Your task to perform on an android device: make emails show in primary in the gmail app Image 0: 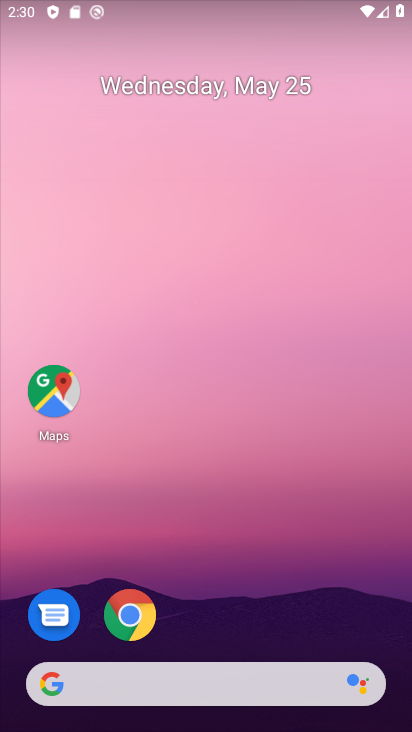
Step 0: drag from (238, 637) to (176, 246)
Your task to perform on an android device: make emails show in primary in the gmail app Image 1: 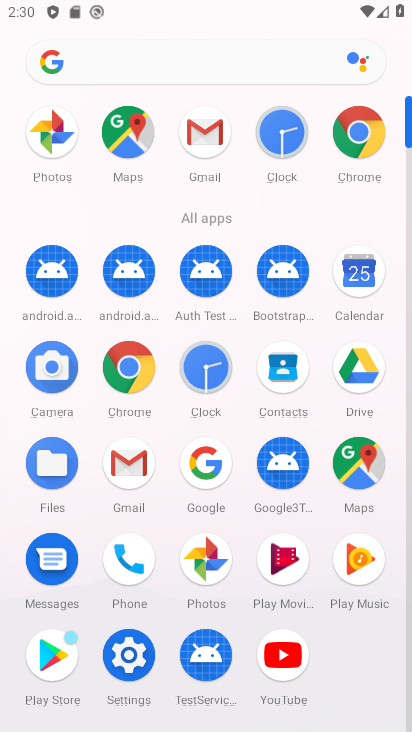
Step 1: click (197, 136)
Your task to perform on an android device: make emails show in primary in the gmail app Image 2: 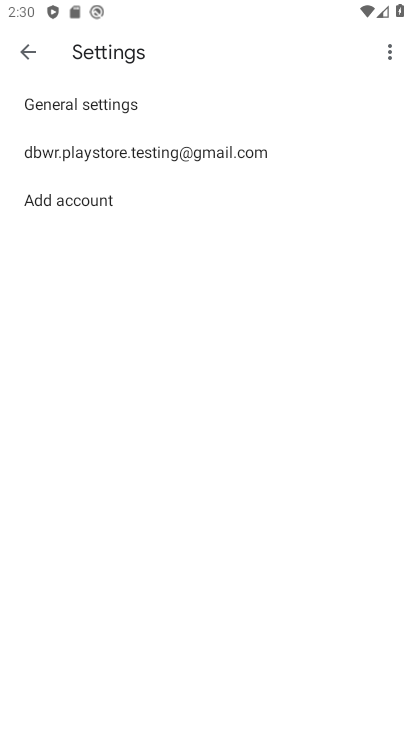
Step 2: click (199, 154)
Your task to perform on an android device: make emails show in primary in the gmail app Image 3: 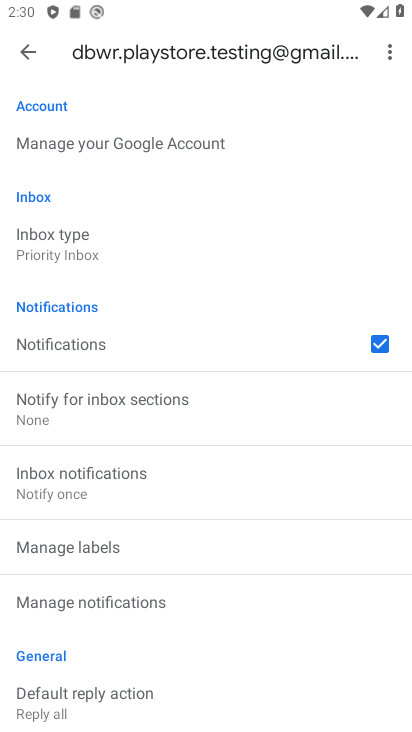
Step 3: click (180, 240)
Your task to perform on an android device: make emails show in primary in the gmail app Image 4: 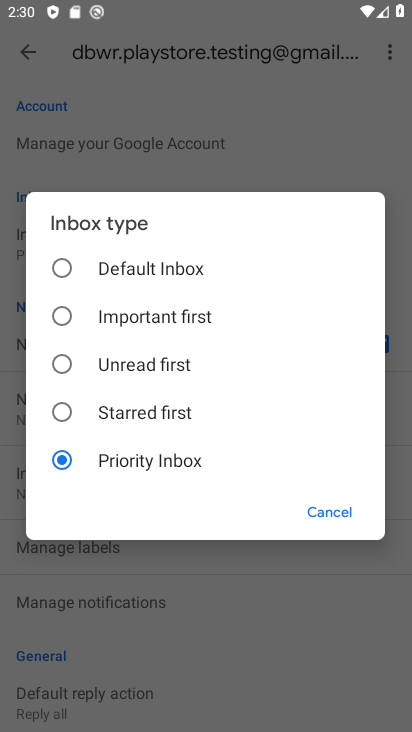
Step 4: click (181, 275)
Your task to perform on an android device: make emails show in primary in the gmail app Image 5: 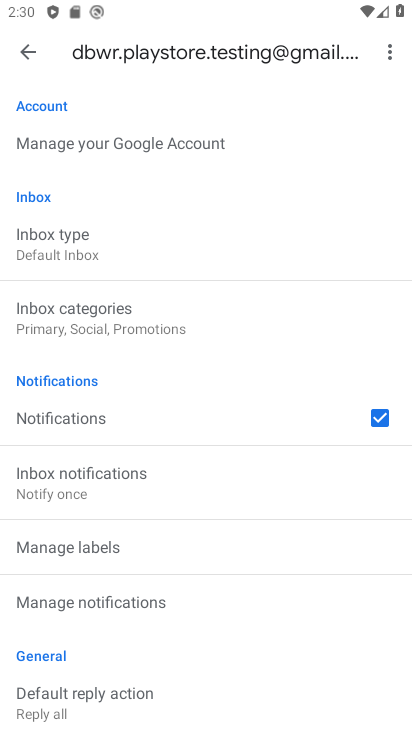
Step 5: task complete